Your task to perform on an android device: Set the phone to "Do not disturb". Image 0: 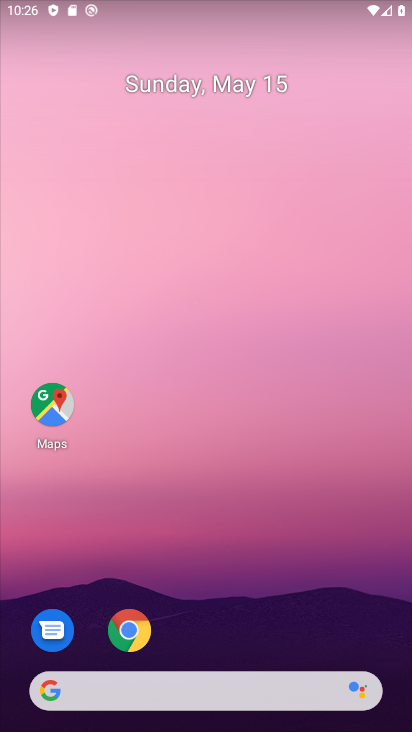
Step 0: drag from (197, 7) to (240, 574)
Your task to perform on an android device: Set the phone to "Do not disturb". Image 1: 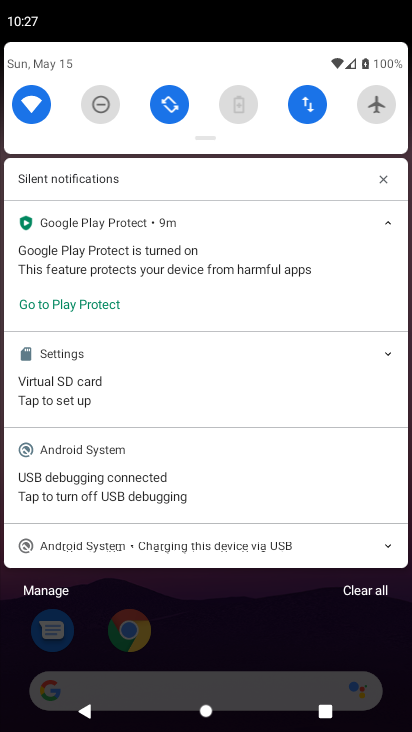
Step 1: click (111, 104)
Your task to perform on an android device: Set the phone to "Do not disturb". Image 2: 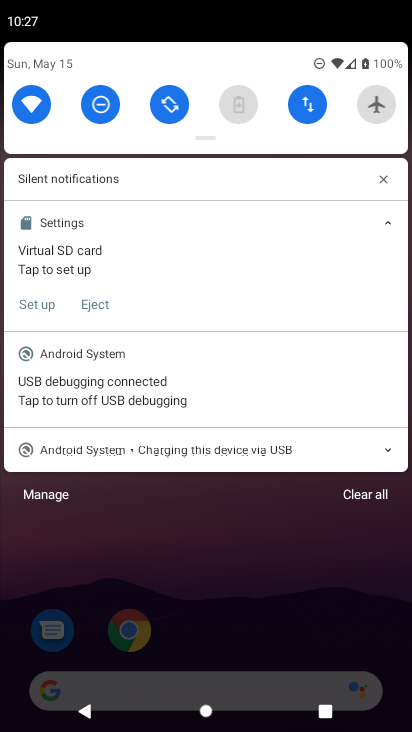
Step 2: task complete